Your task to perform on an android device: check android version Image 0: 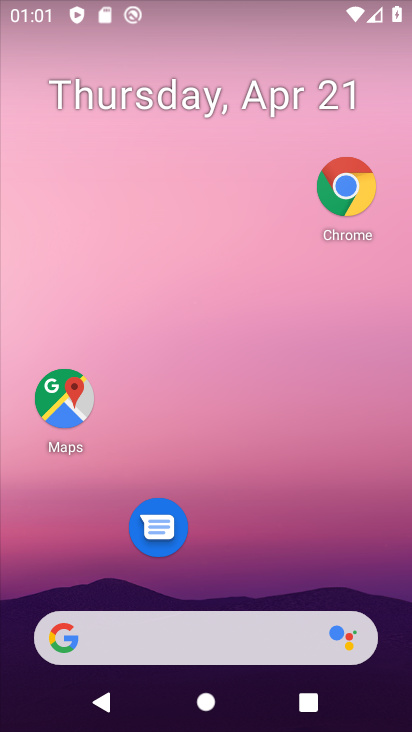
Step 0: drag from (241, 551) to (332, 54)
Your task to perform on an android device: check android version Image 1: 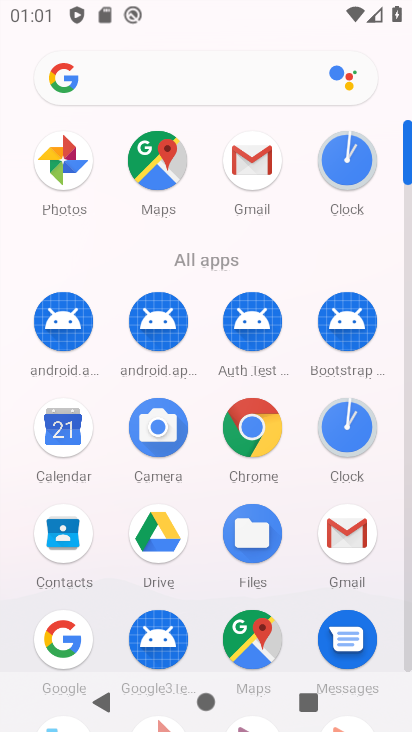
Step 1: drag from (206, 609) to (241, 242)
Your task to perform on an android device: check android version Image 2: 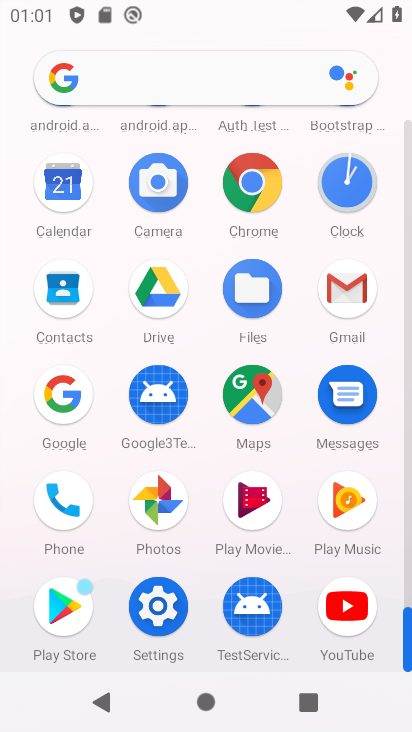
Step 2: drag from (205, 570) to (211, 238)
Your task to perform on an android device: check android version Image 3: 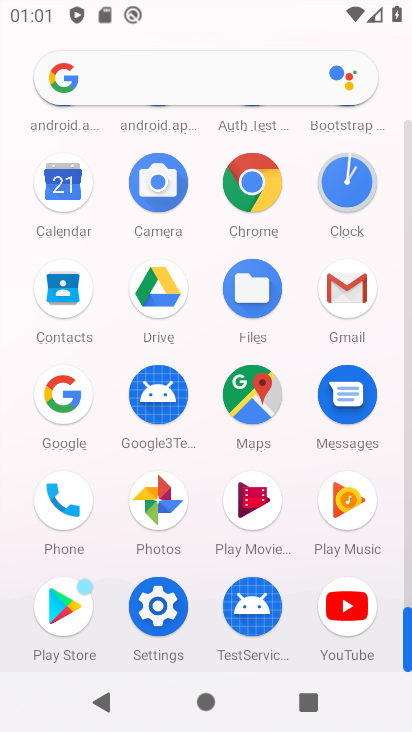
Step 3: click (147, 585)
Your task to perform on an android device: check android version Image 4: 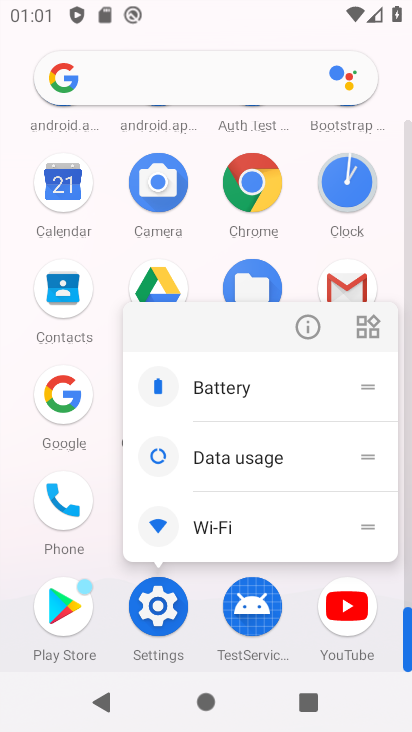
Step 4: click (307, 328)
Your task to perform on an android device: check android version Image 5: 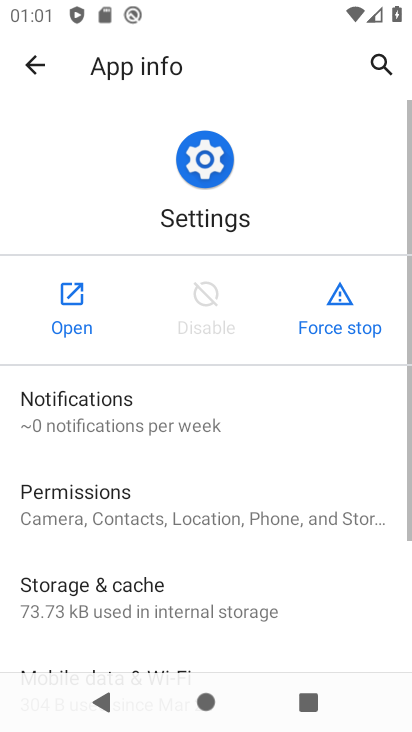
Step 5: click (70, 295)
Your task to perform on an android device: check android version Image 6: 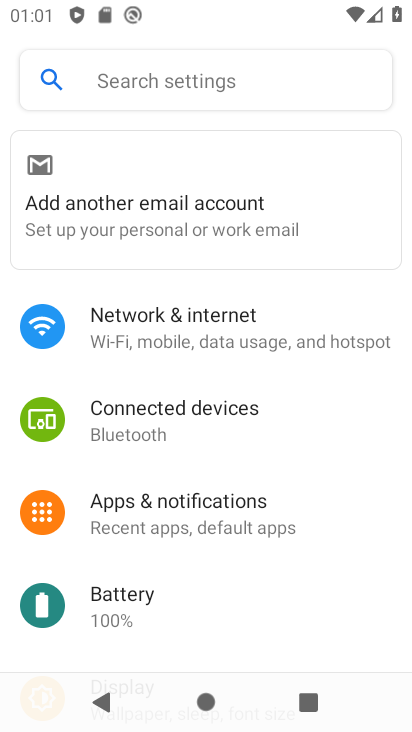
Step 6: drag from (228, 665) to (269, 5)
Your task to perform on an android device: check android version Image 7: 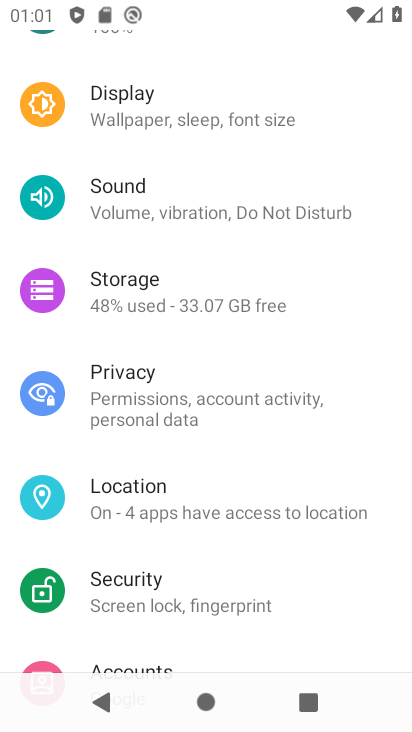
Step 7: drag from (244, 611) to (259, 61)
Your task to perform on an android device: check android version Image 8: 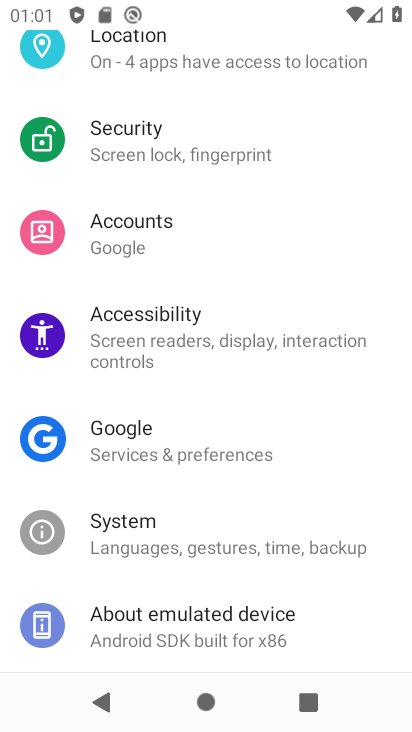
Step 8: click (189, 612)
Your task to perform on an android device: check android version Image 9: 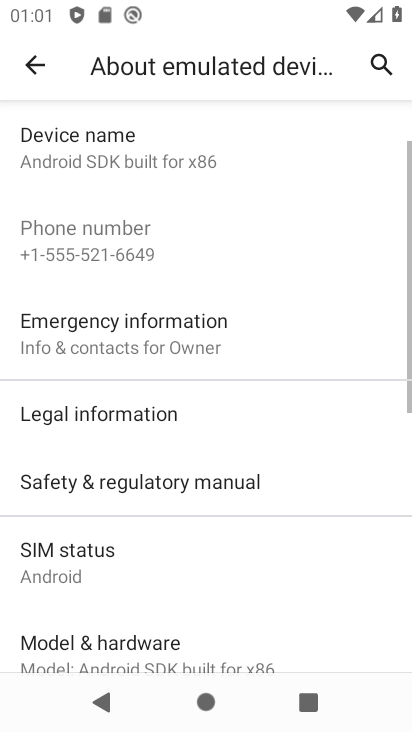
Step 9: drag from (193, 606) to (252, 13)
Your task to perform on an android device: check android version Image 10: 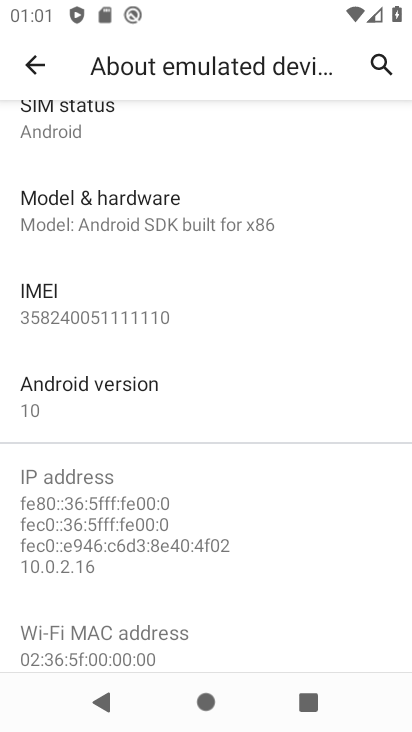
Step 10: drag from (157, 537) to (152, 9)
Your task to perform on an android device: check android version Image 11: 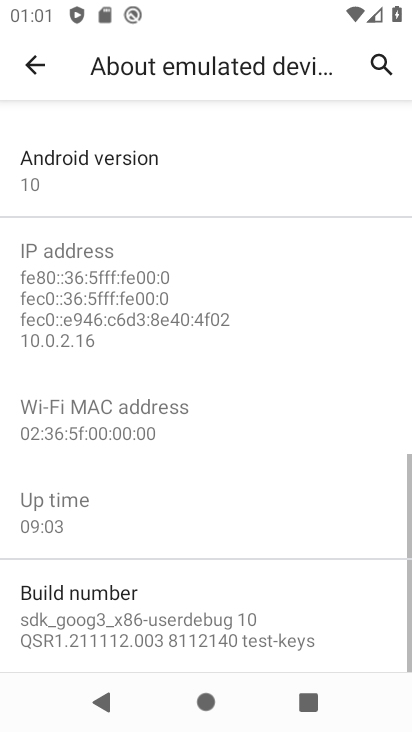
Step 11: drag from (141, 626) to (166, 110)
Your task to perform on an android device: check android version Image 12: 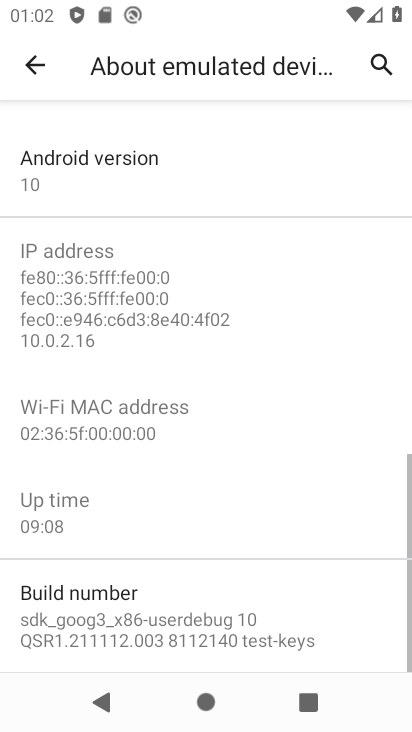
Step 12: click (122, 159)
Your task to perform on an android device: check android version Image 13: 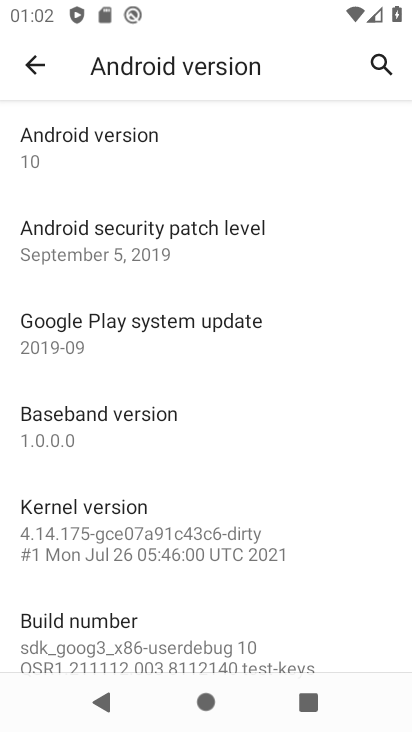
Step 13: click (110, 158)
Your task to perform on an android device: check android version Image 14: 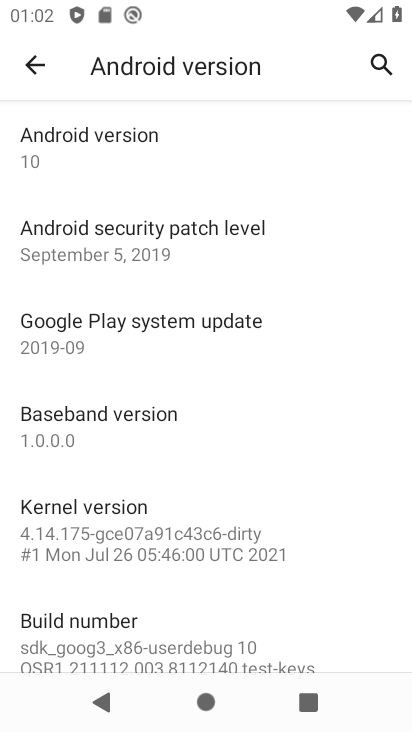
Step 14: task complete